Your task to perform on an android device: turn on the 24-hour format for clock Image 0: 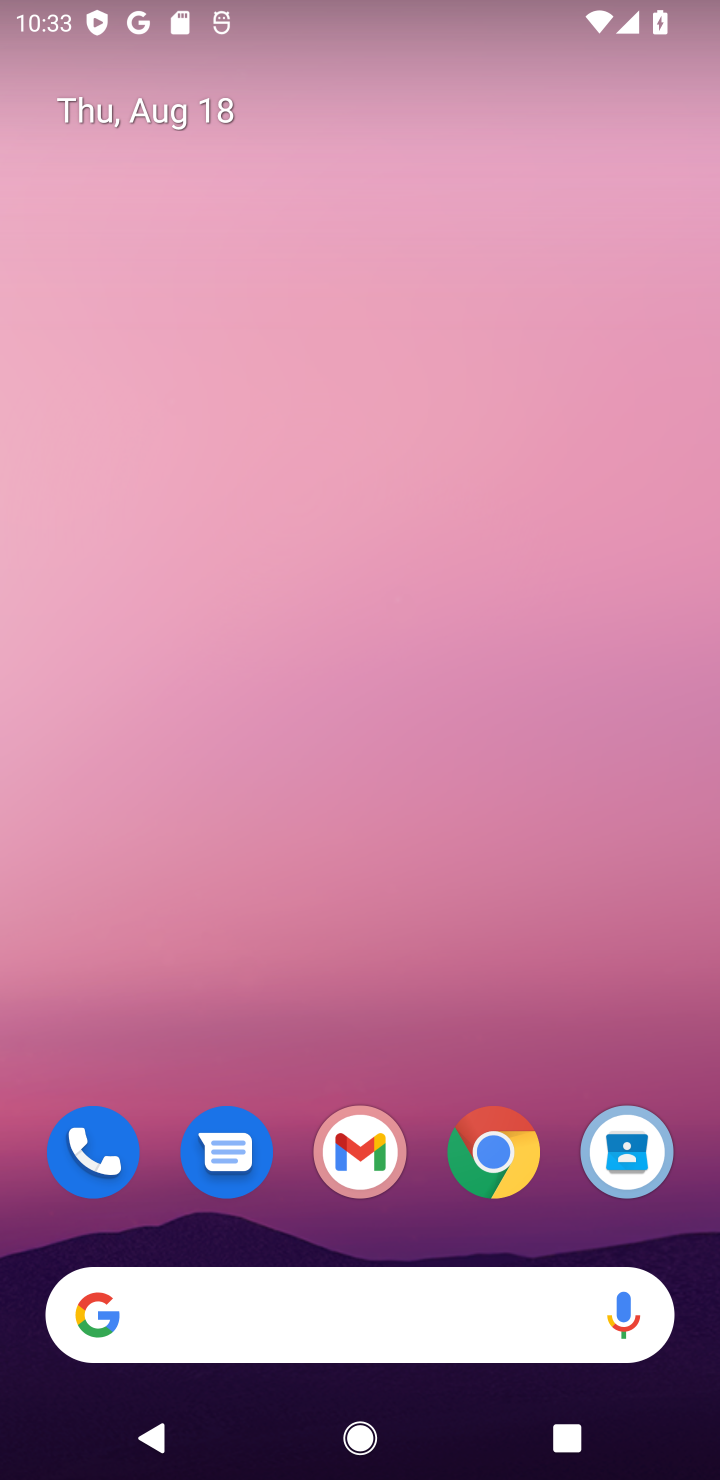
Step 0: drag from (433, 946) to (494, 0)
Your task to perform on an android device: turn on the 24-hour format for clock Image 1: 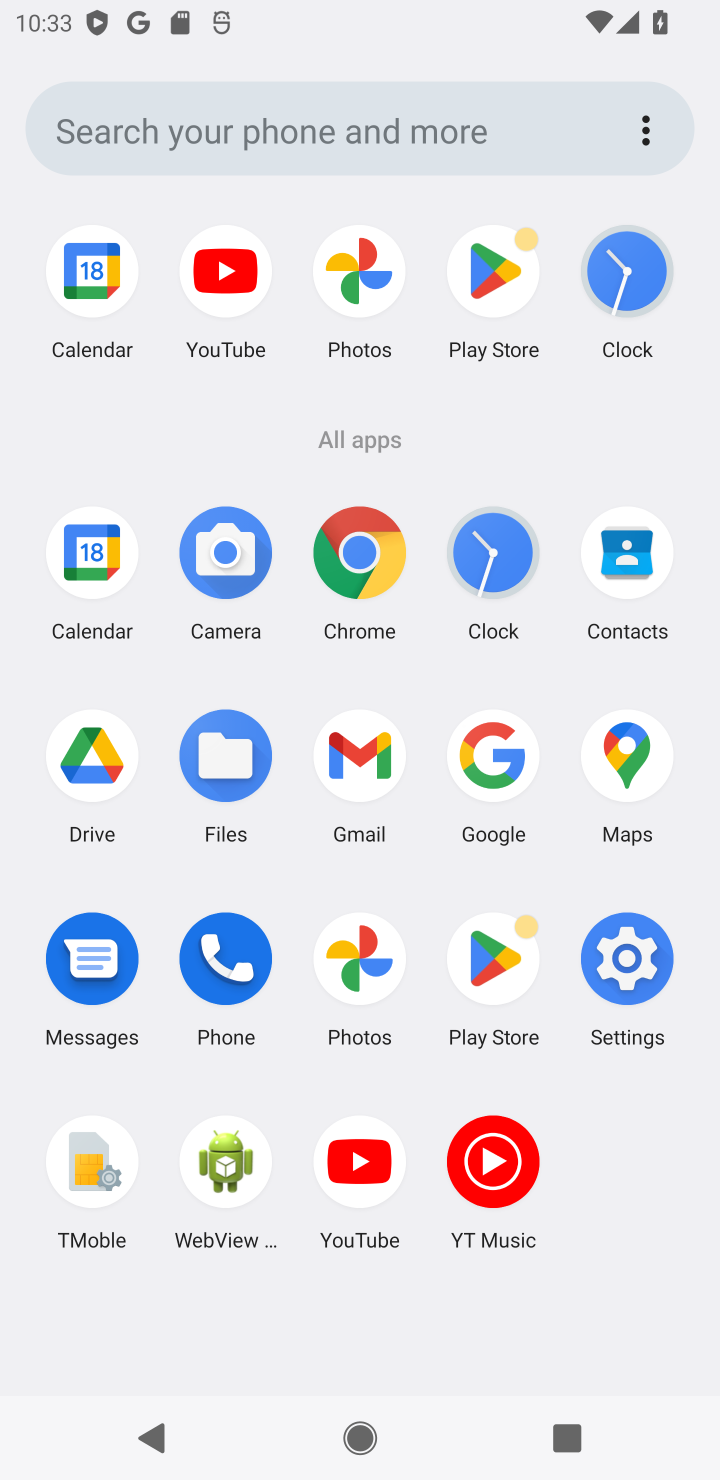
Step 1: click (631, 281)
Your task to perform on an android device: turn on the 24-hour format for clock Image 2: 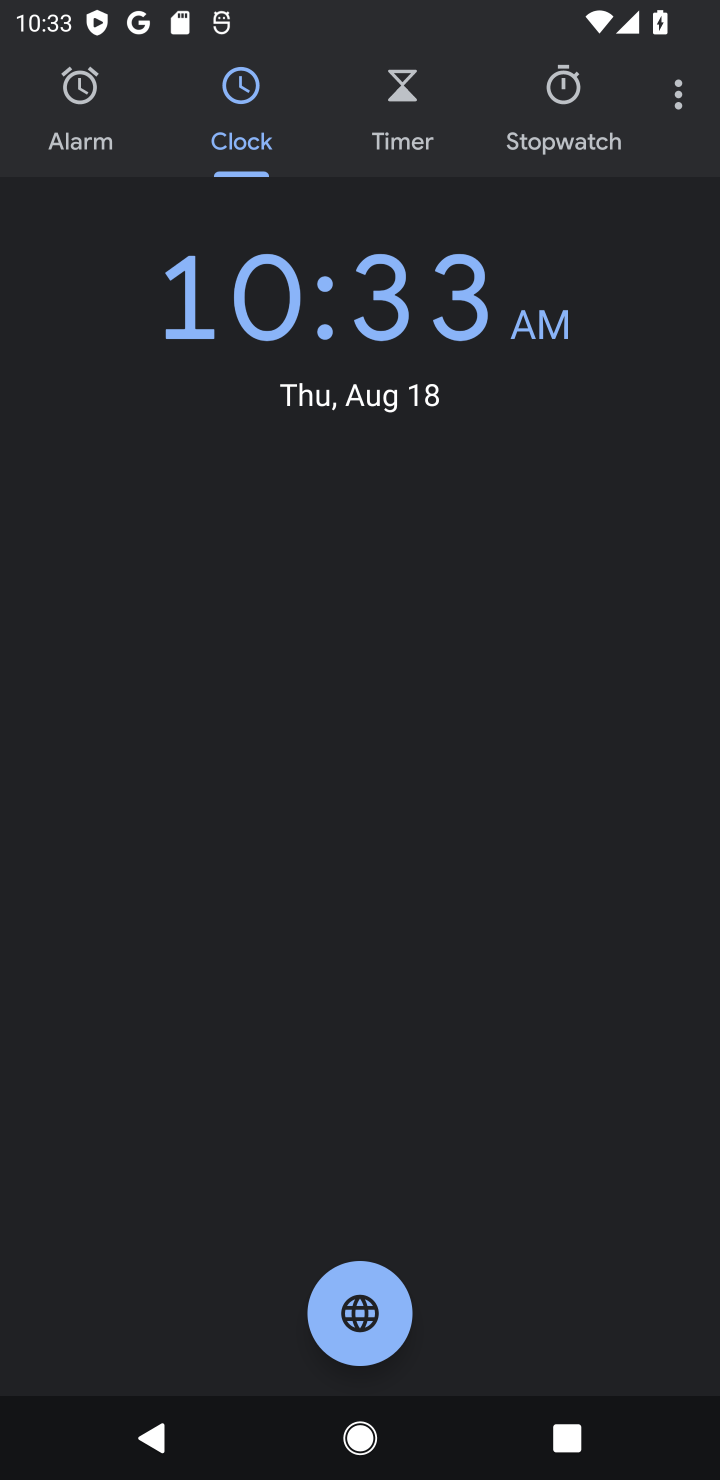
Step 2: click (677, 111)
Your task to perform on an android device: turn on the 24-hour format for clock Image 3: 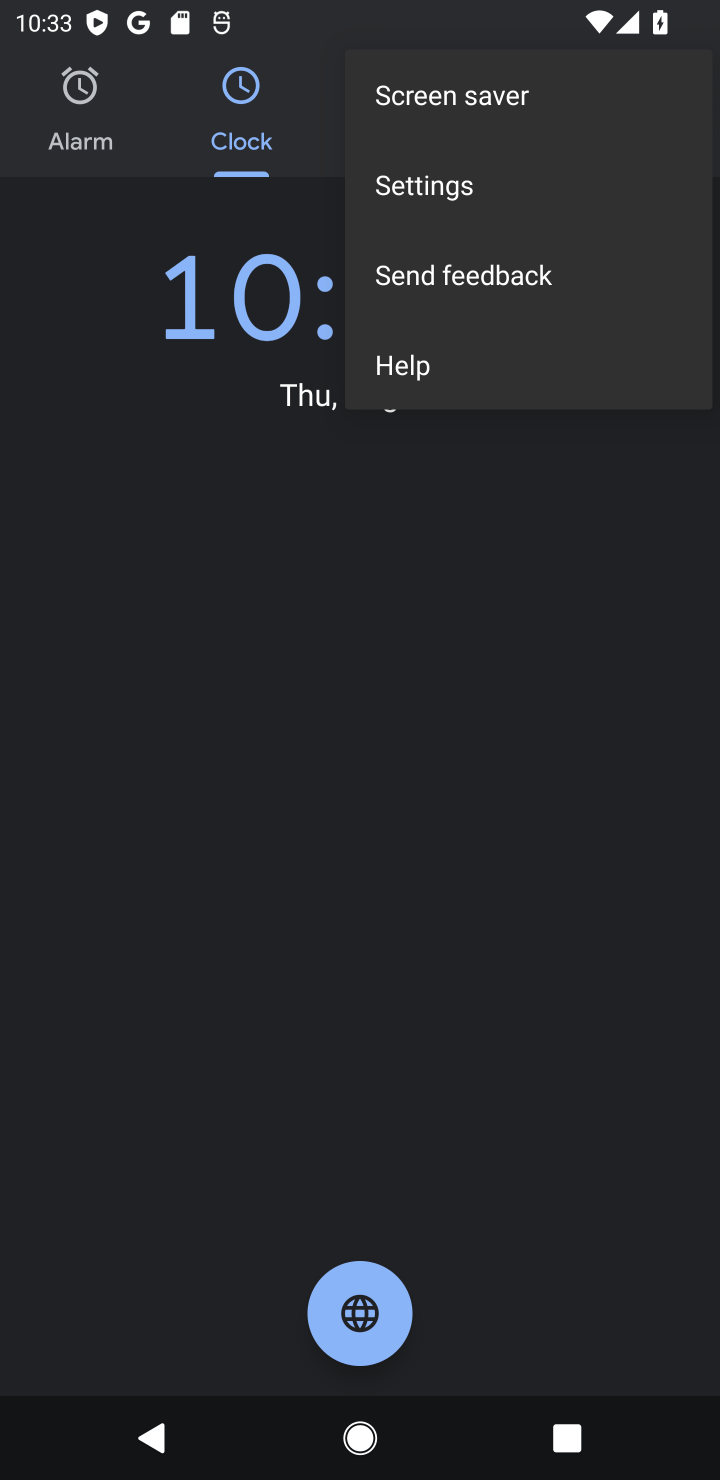
Step 3: click (517, 203)
Your task to perform on an android device: turn on the 24-hour format for clock Image 4: 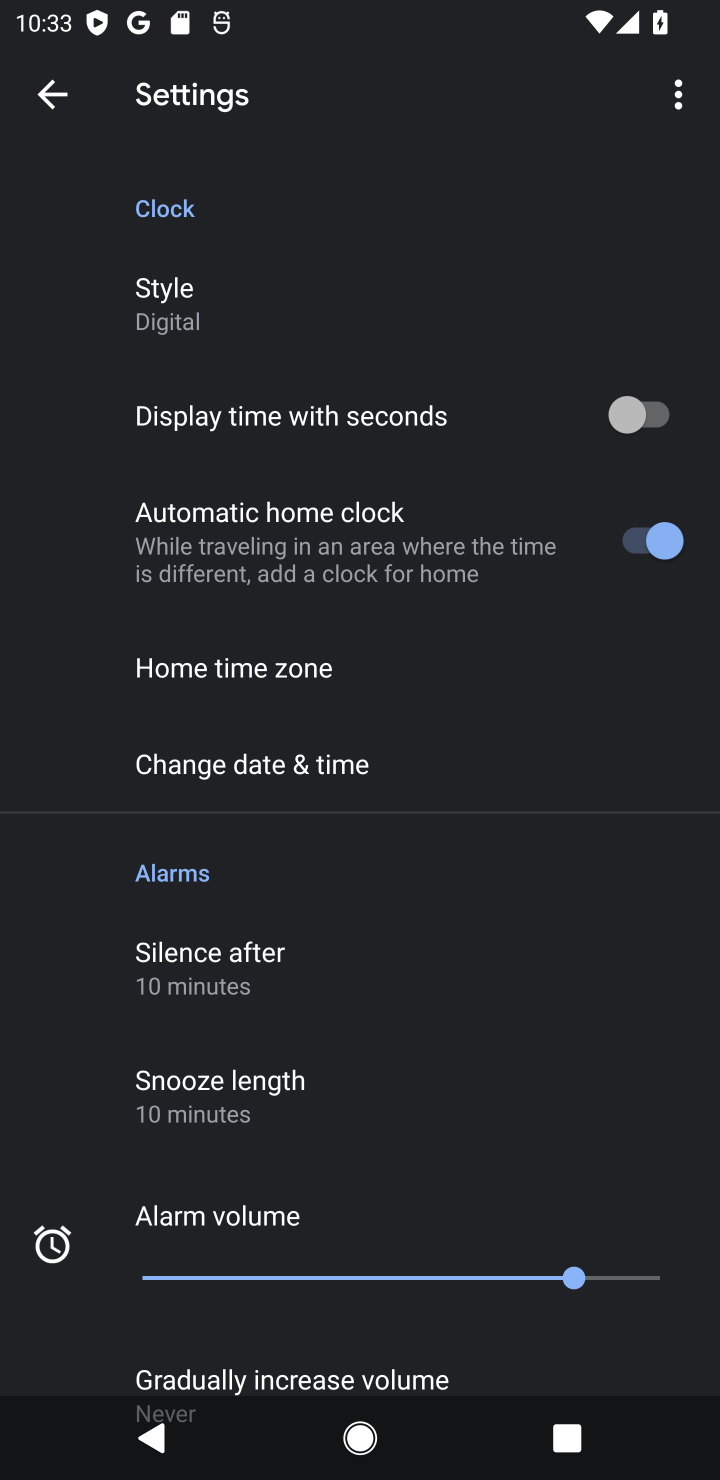
Step 4: click (453, 777)
Your task to perform on an android device: turn on the 24-hour format for clock Image 5: 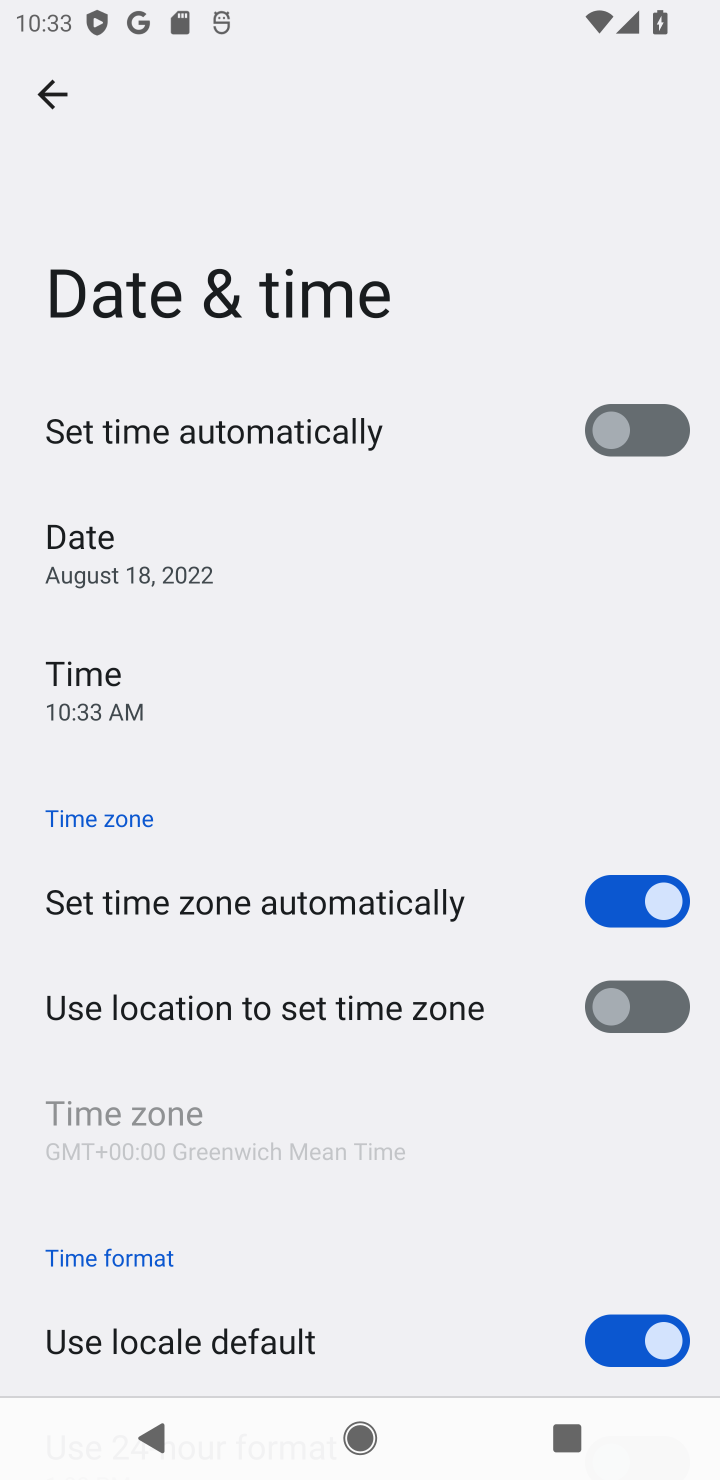
Step 5: drag from (399, 1122) to (490, 605)
Your task to perform on an android device: turn on the 24-hour format for clock Image 6: 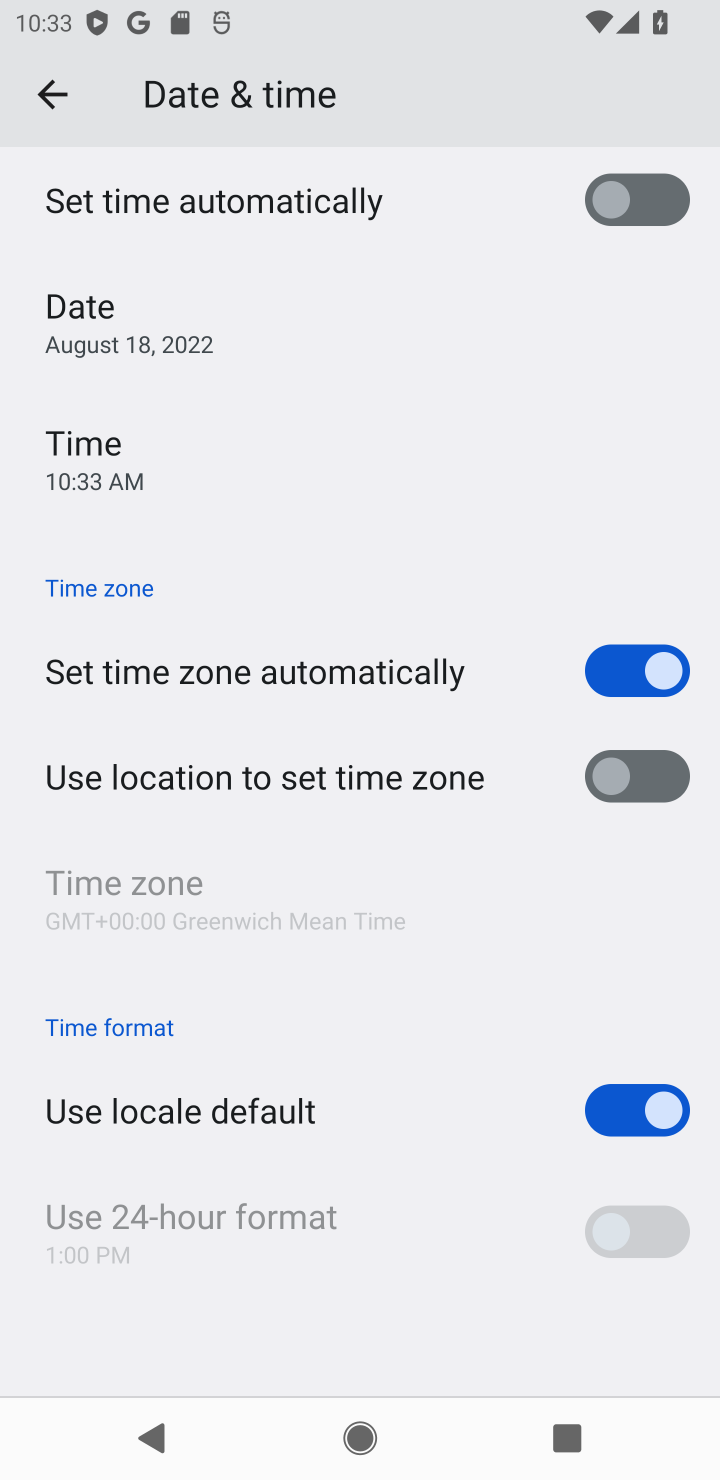
Step 6: click (628, 1099)
Your task to perform on an android device: turn on the 24-hour format for clock Image 7: 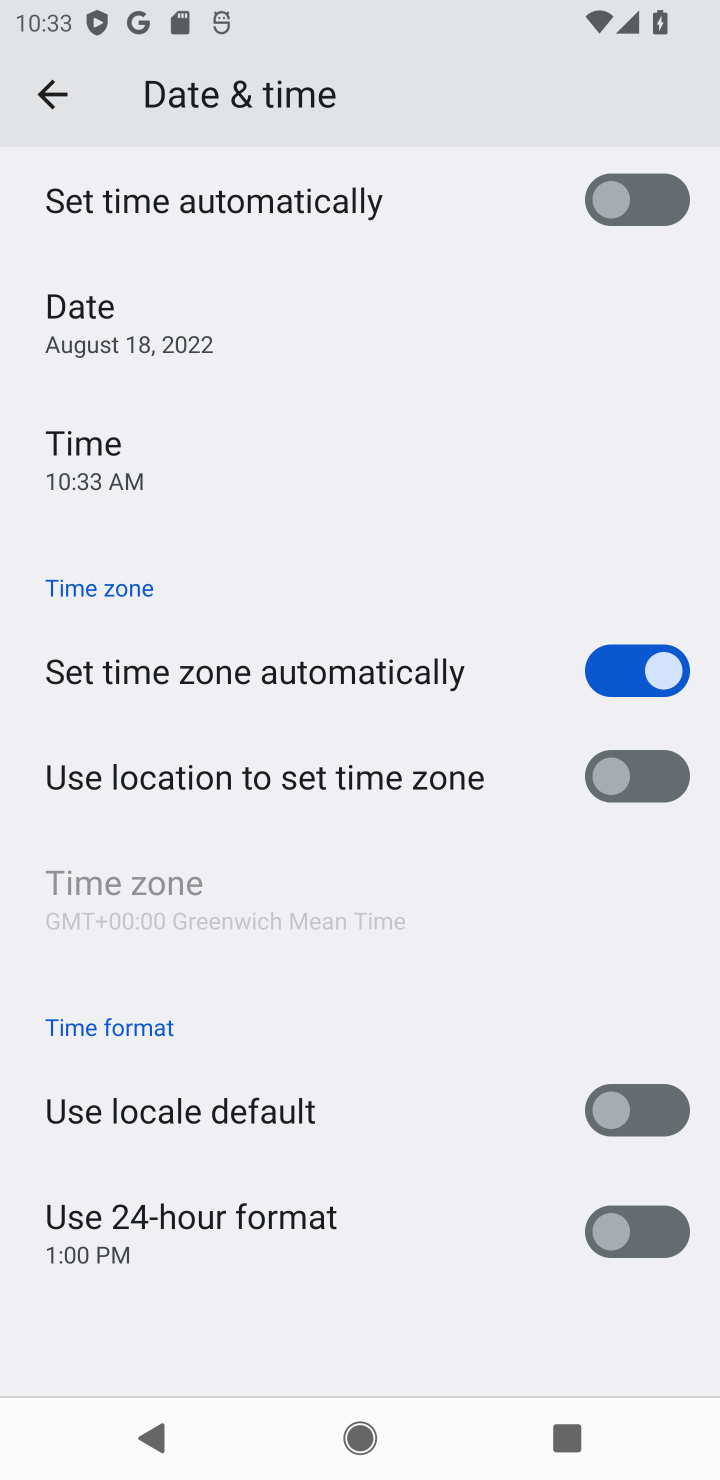
Step 7: click (651, 1229)
Your task to perform on an android device: turn on the 24-hour format for clock Image 8: 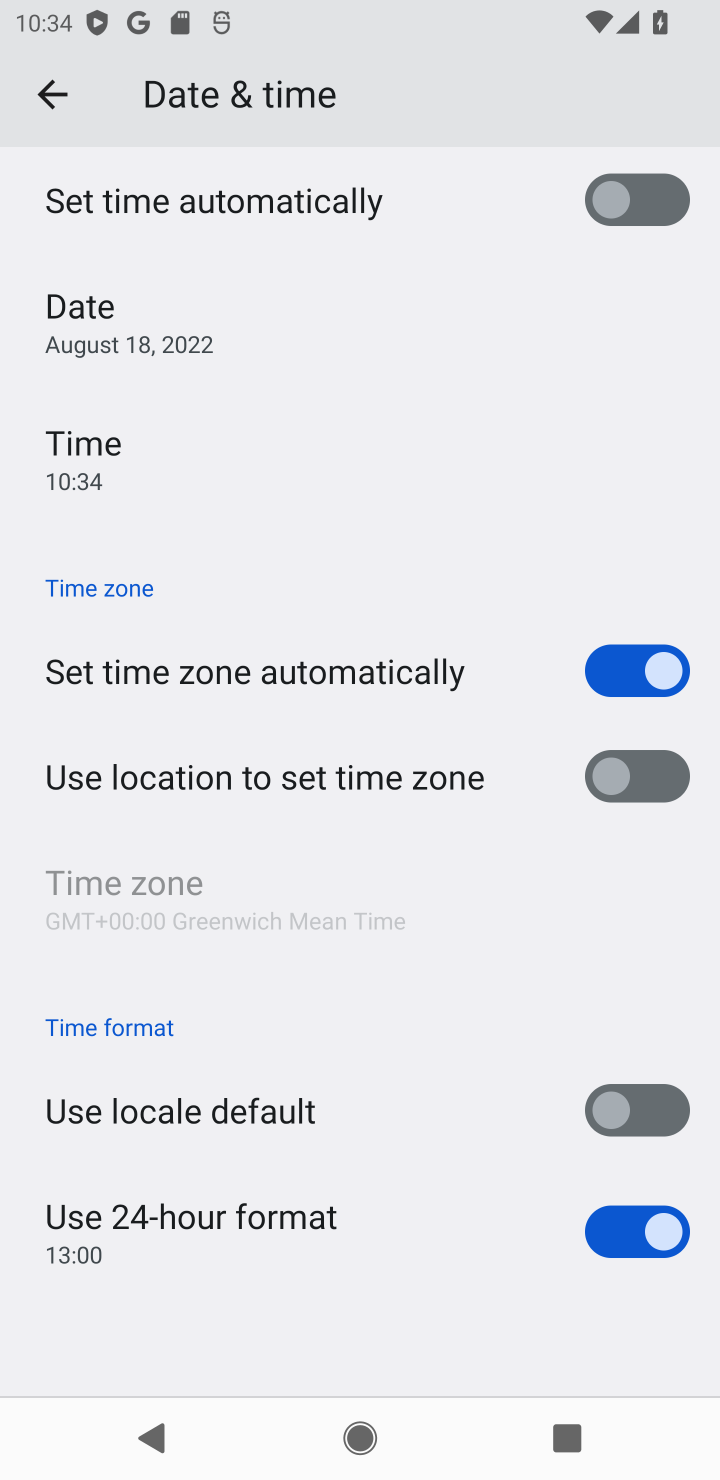
Step 8: task complete